Your task to perform on an android device: Is it going to rain this weekend? Image 0: 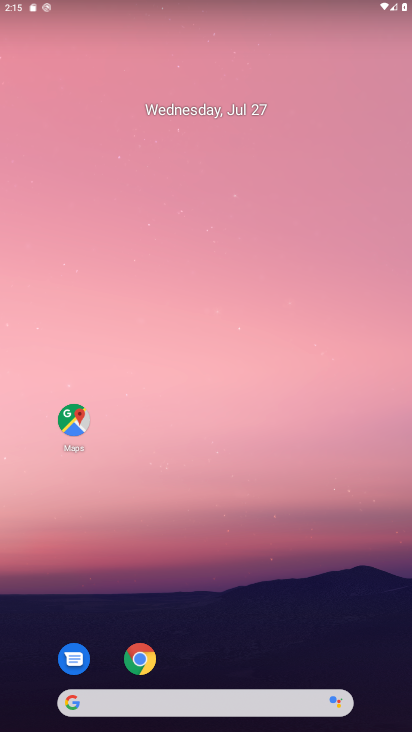
Step 0: drag from (219, 597) to (305, 82)
Your task to perform on an android device: Is it going to rain this weekend? Image 1: 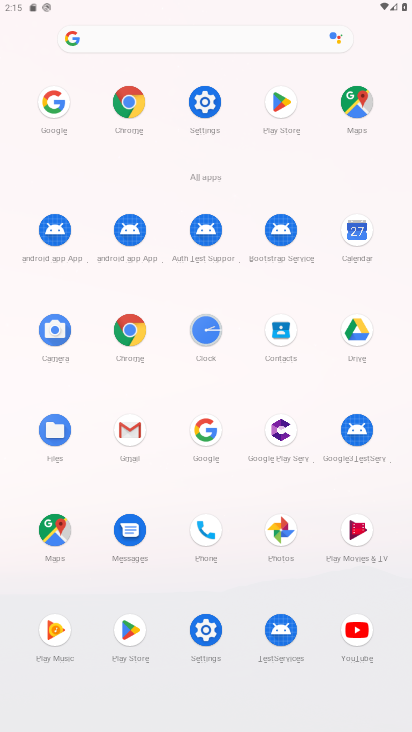
Step 1: click (213, 427)
Your task to perform on an android device: Is it going to rain this weekend? Image 2: 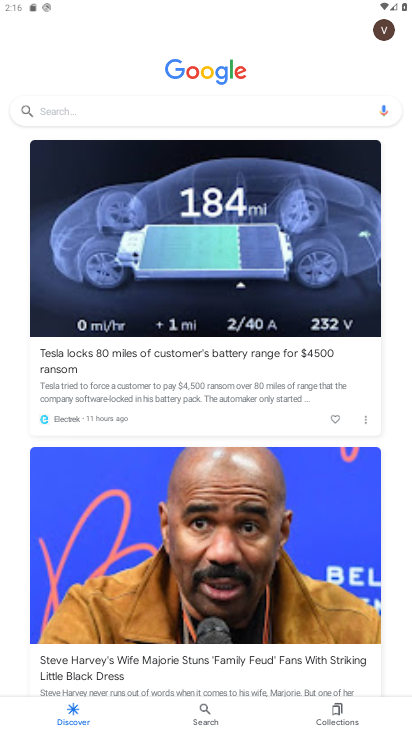
Step 2: click (171, 107)
Your task to perform on an android device: Is it going to rain this weekend? Image 3: 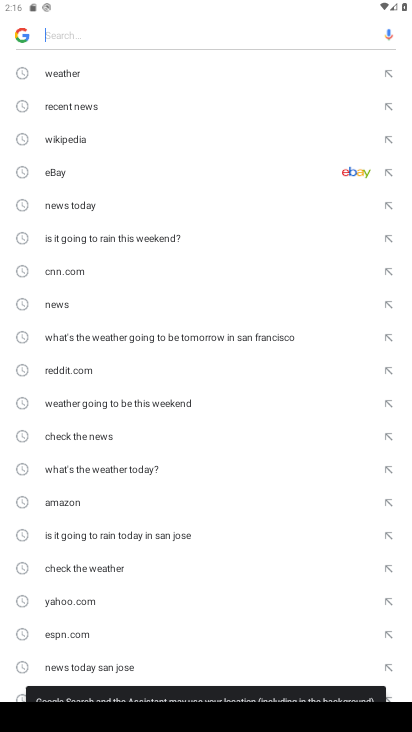
Step 3: click (73, 71)
Your task to perform on an android device: Is it going to rain this weekend? Image 4: 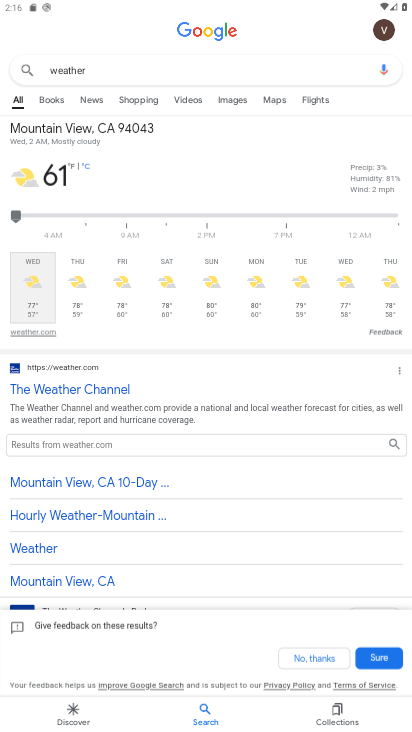
Step 4: task complete